Your task to perform on an android device: turn on wifi Image 0: 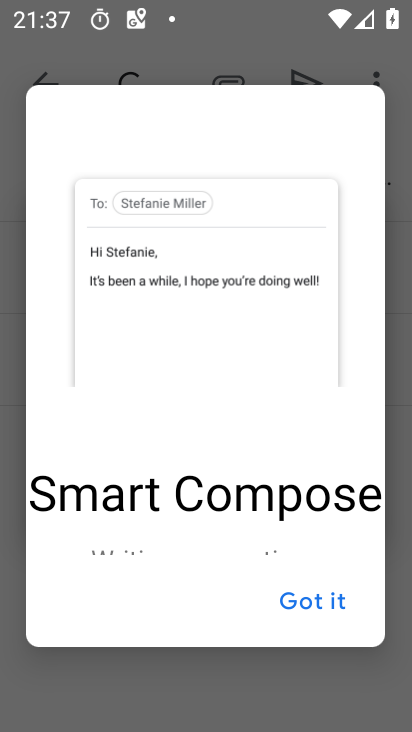
Step 0: press home button
Your task to perform on an android device: turn on wifi Image 1: 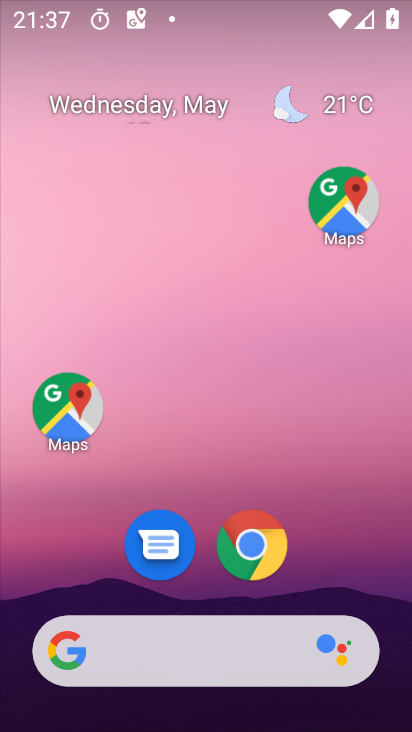
Step 1: drag from (342, 561) to (326, 0)
Your task to perform on an android device: turn on wifi Image 2: 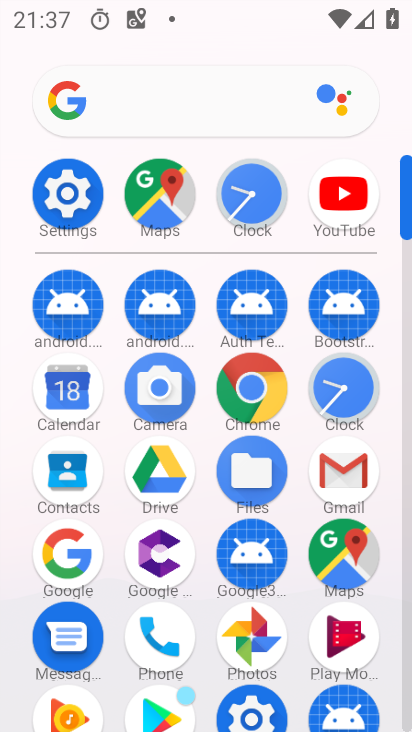
Step 2: click (62, 205)
Your task to perform on an android device: turn on wifi Image 3: 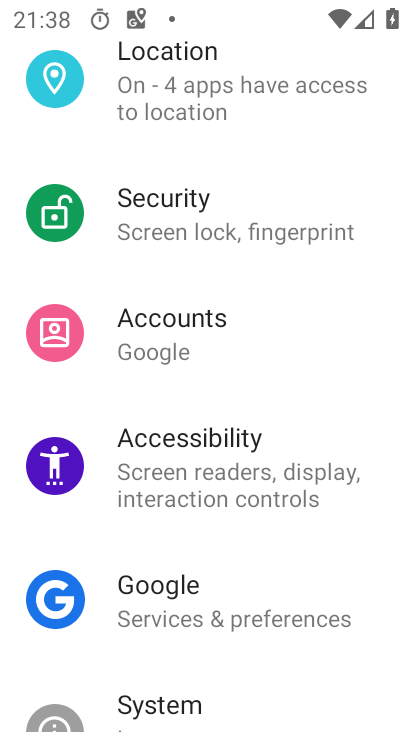
Step 3: drag from (135, 220) to (193, 430)
Your task to perform on an android device: turn on wifi Image 4: 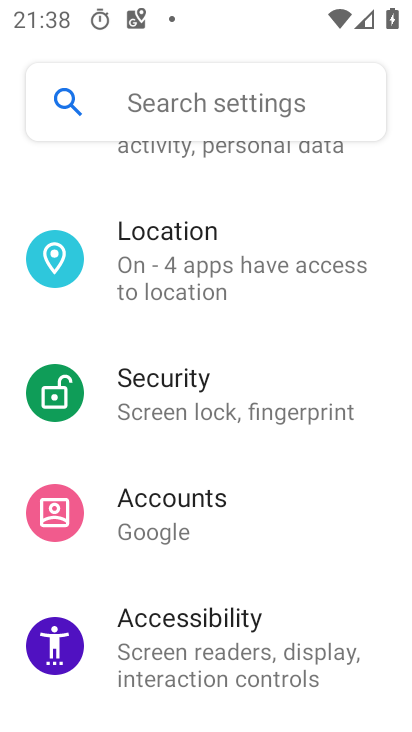
Step 4: drag from (219, 206) to (224, 434)
Your task to perform on an android device: turn on wifi Image 5: 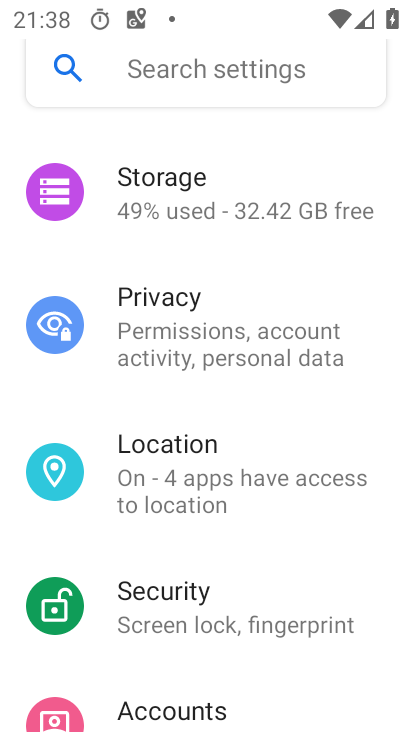
Step 5: drag from (225, 283) to (257, 501)
Your task to perform on an android device: turn on wifi Image 6: 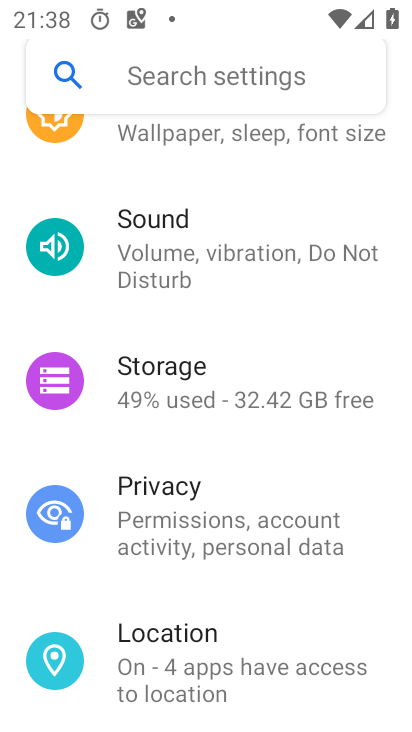
Step 6: drag from (239, 300) to (251, 502)
Your task to perform on an android device: turn on wifi Image 7: 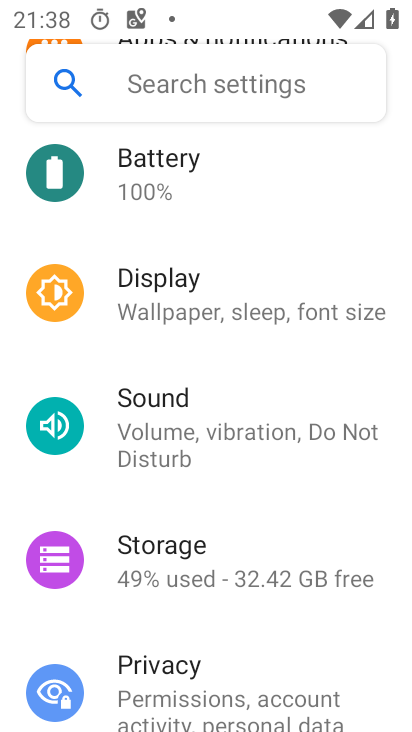
Step 7: drag from (257, 251) to (255, 453)
Your task to perform on an android device: turn on wifi Image 8: 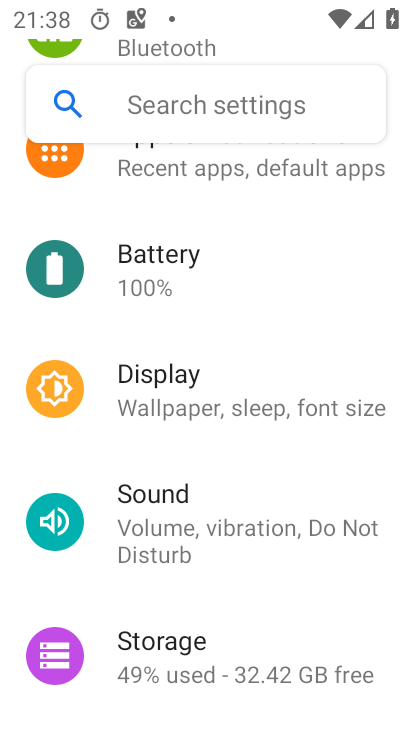
Step 8: drag from (288, 298) to (270, 582)
Your task to perform on an android device: turn on wifi Image 9: 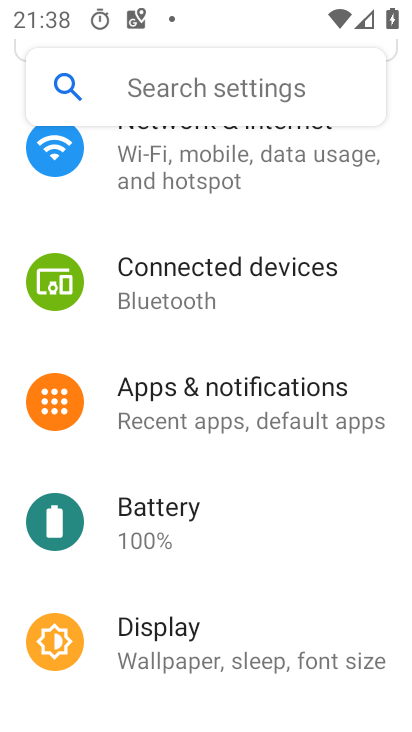
Step 9: click (226, 173)
Your task to perform on an android device: turn on wifi Image 10: 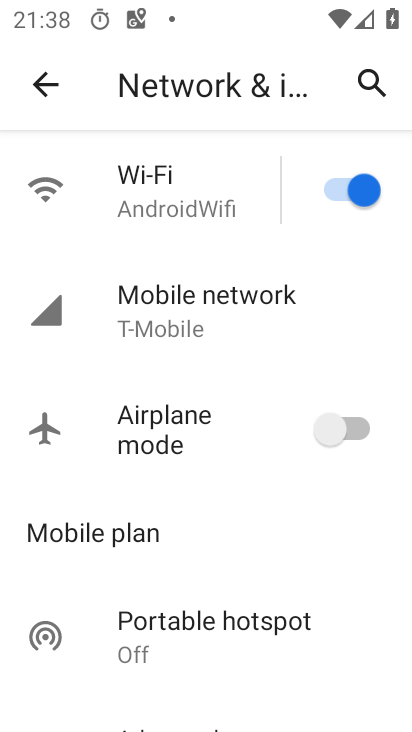
Step 10: task complete